Your task to perform on an android device: uninstall "Venmo" Image 0: 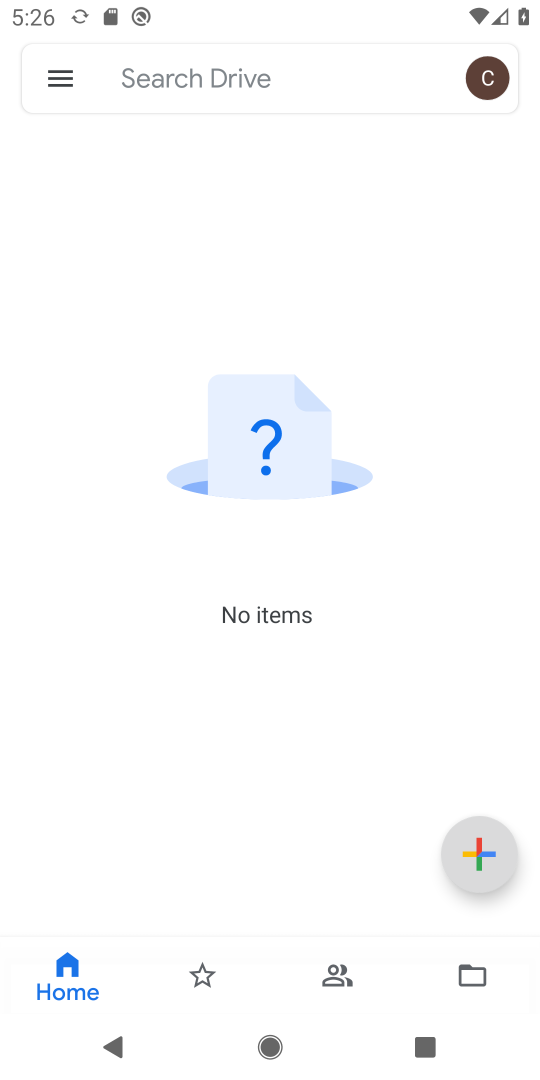
Step 0: press home button
Your task to perform on an android device: uninstall "Venmo" Image 1: 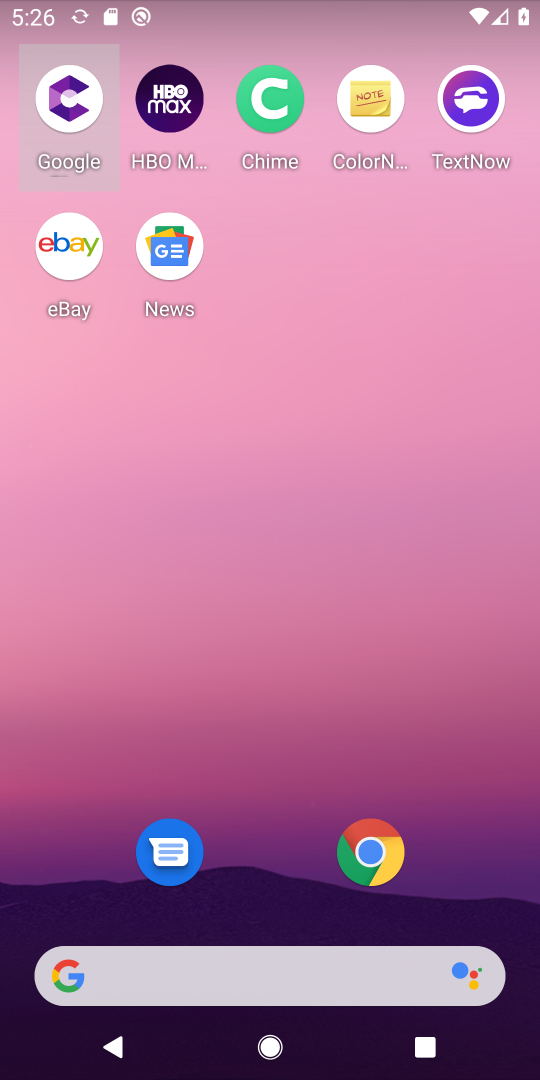
Step 1: drag from (240, 982) to (266, 72)
Your task to perform on an android device: uninstall "Venmo" Image 2: 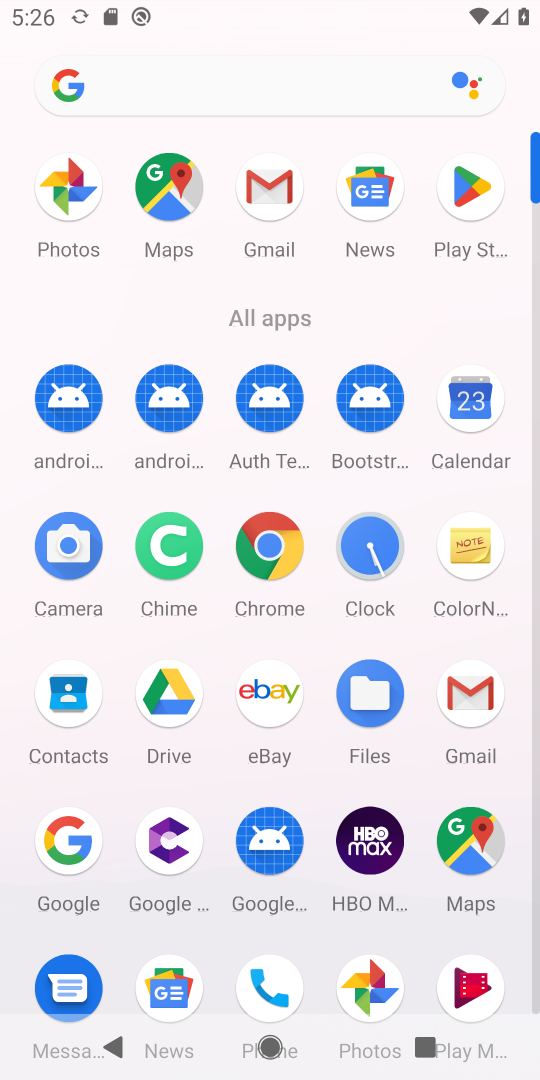
Step 2: click (477, 184)
Your task to perform on an android device: uninstall "Venmo" Image 3: 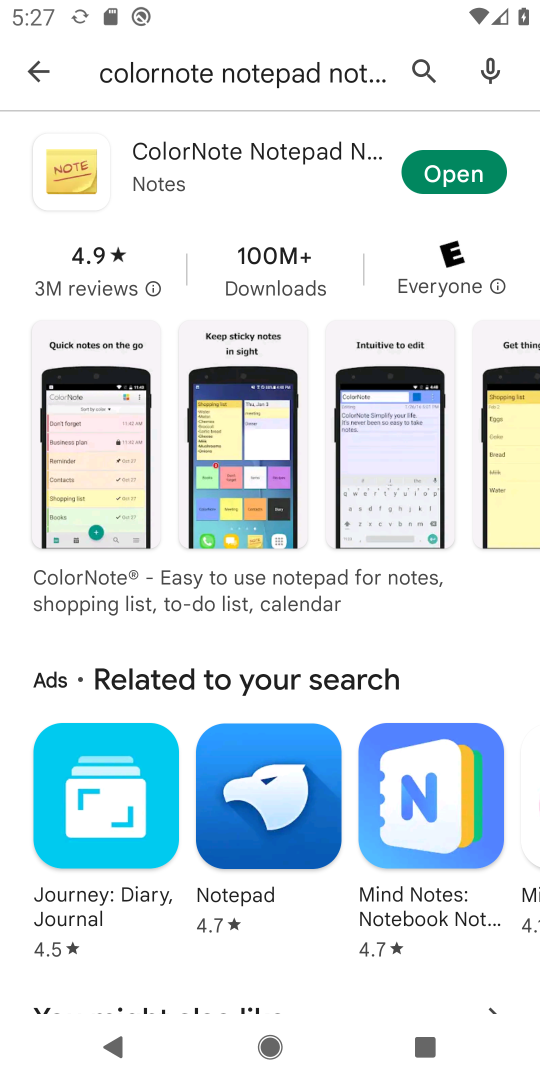
Step 3: press back button
Your task to perform on an android device: uninstall "Venmo" Image 4: 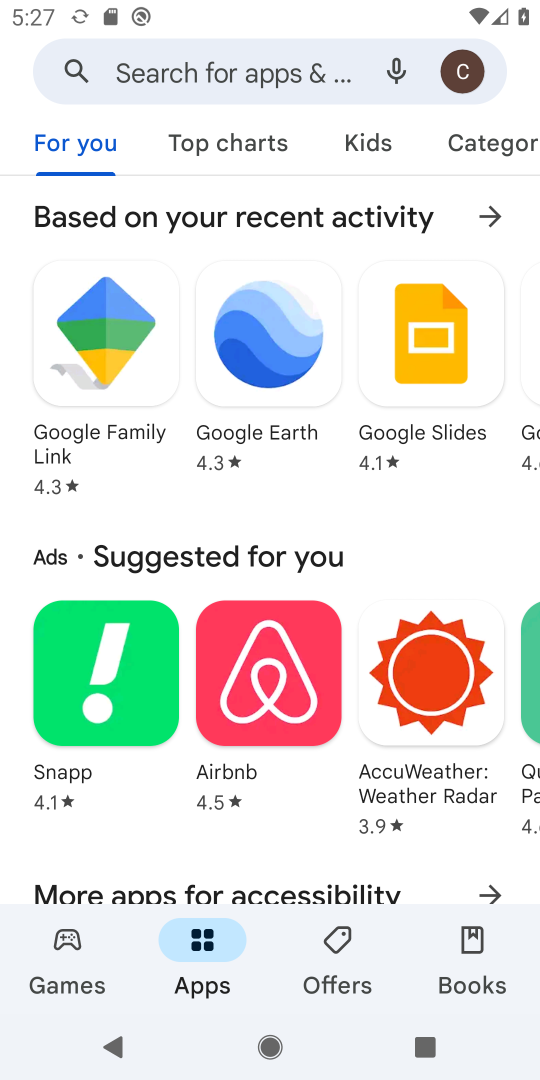
Step 4: click (267, 76)
Your task to perform on an android device: uninstall "Venmo" Image 5: 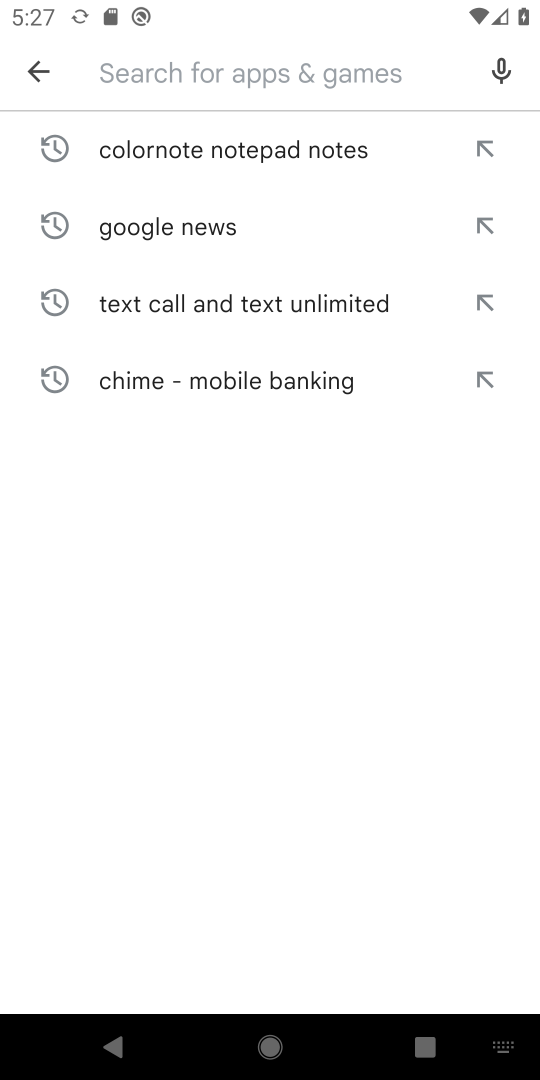
Step 5: type "venmo"
Your task to perform on an android device: uninstall "Venmo" Image 6: 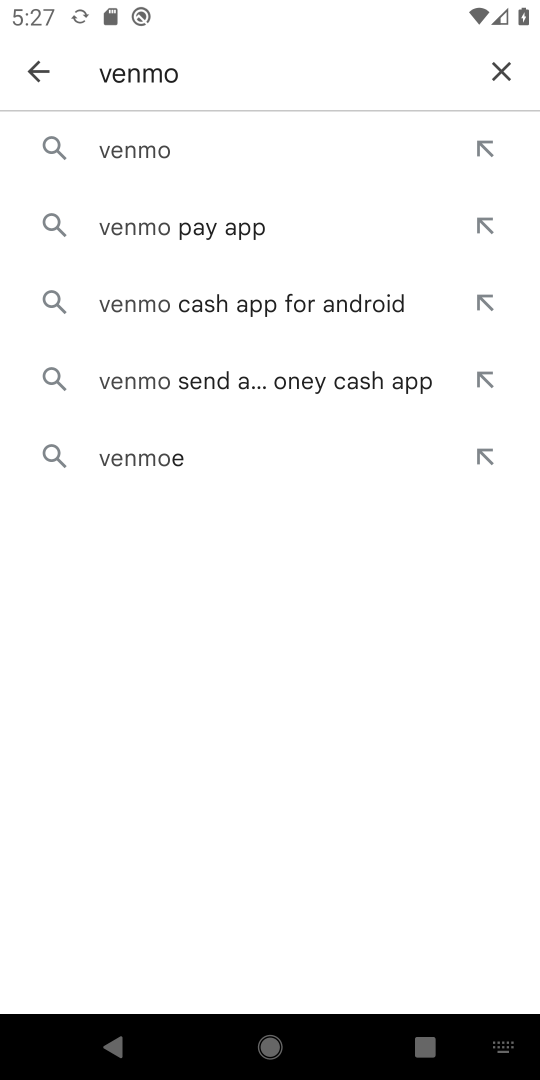
Step 6: click (149, 154)
Your task to perform on an android device: uninstall "Venmo" Image 7: 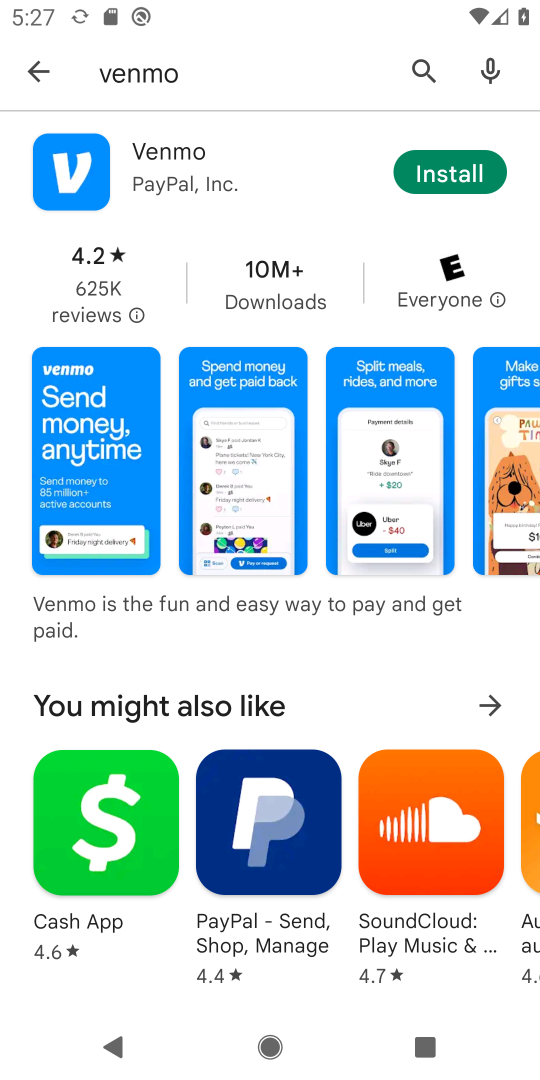
Step 7: task complete